Your task to perform on an android device: turn pop-ups off in chrome Image 0: 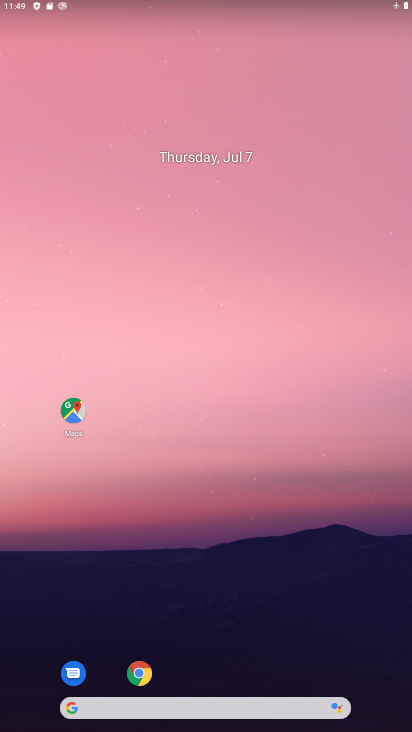
Step 0: click (139, 674)
Your task to perform on an android device: turn pop-ups off in chrome Image 1: 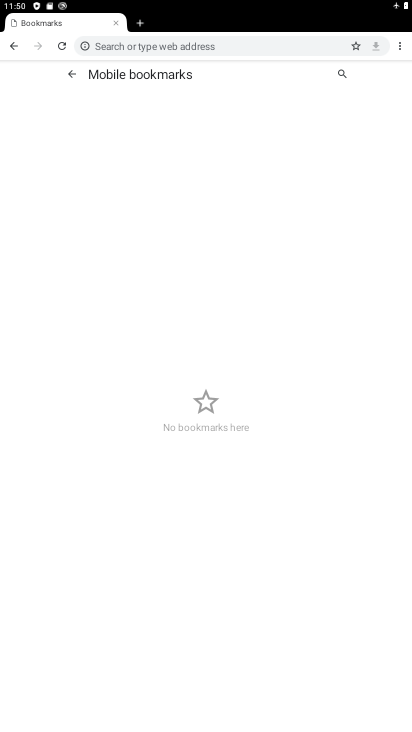
Step 1: click (401, 44)
Your task to perform on an android device: turn pop-ups off in chrome Image 2: 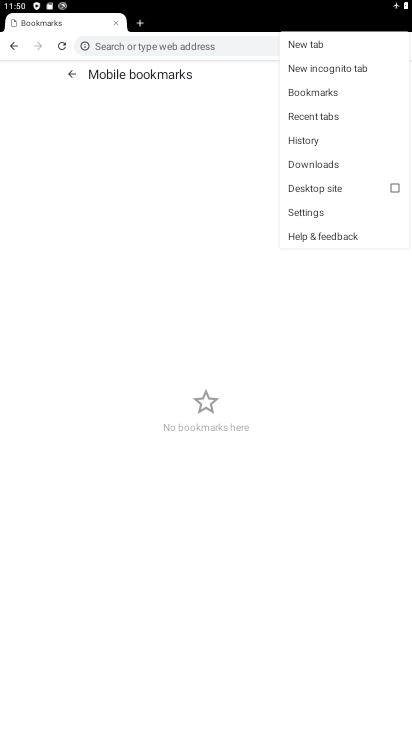
Step 2: click (323, 212)
Your task to perform on an android device: turn pop-ups off in chrome Image 3: 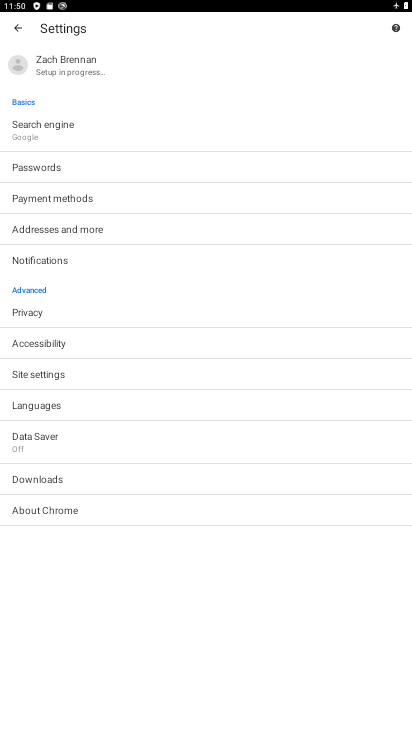
Step 3: task complete